Your task to perform on an android device: Open Maps and search for coffee Image 0: 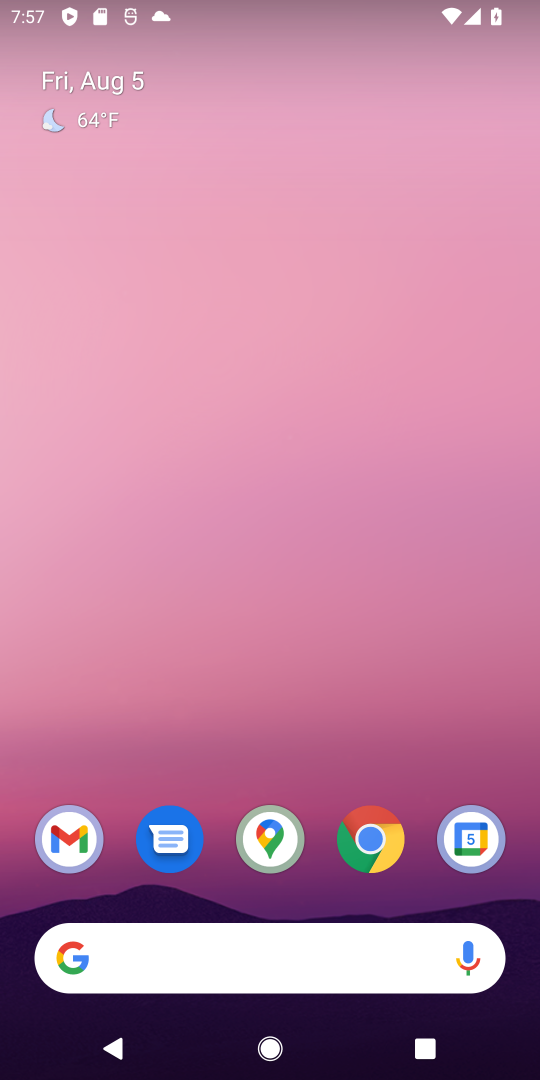
Step 0: drag from (329, 900) to (211, 12)
Your task to perform on an android device: Open Maps and search for coffee Image 1: 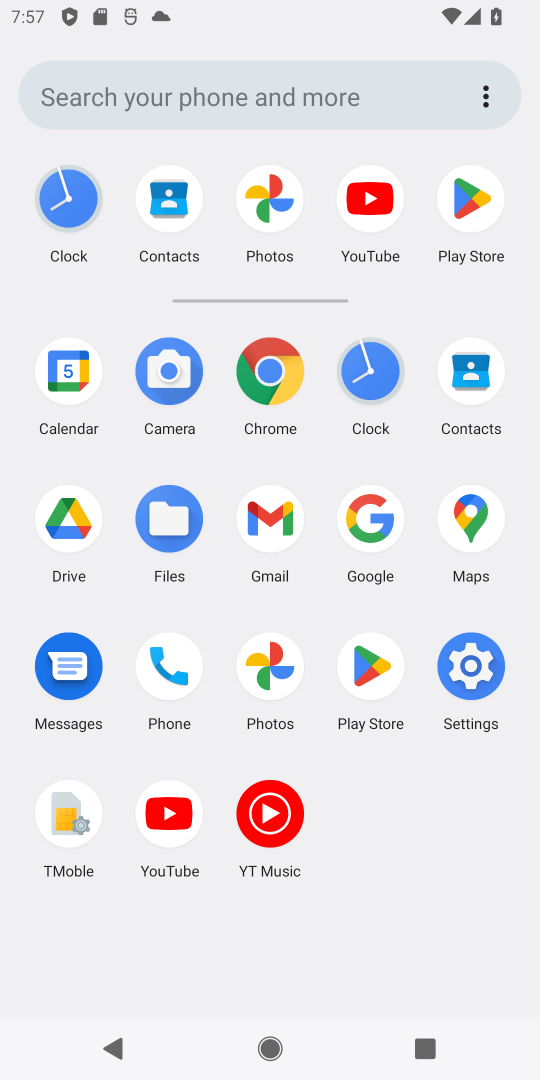
Step 1: click (470, 521)
Your task to perform on an android device: Open Maps and search for coffee Image 2: 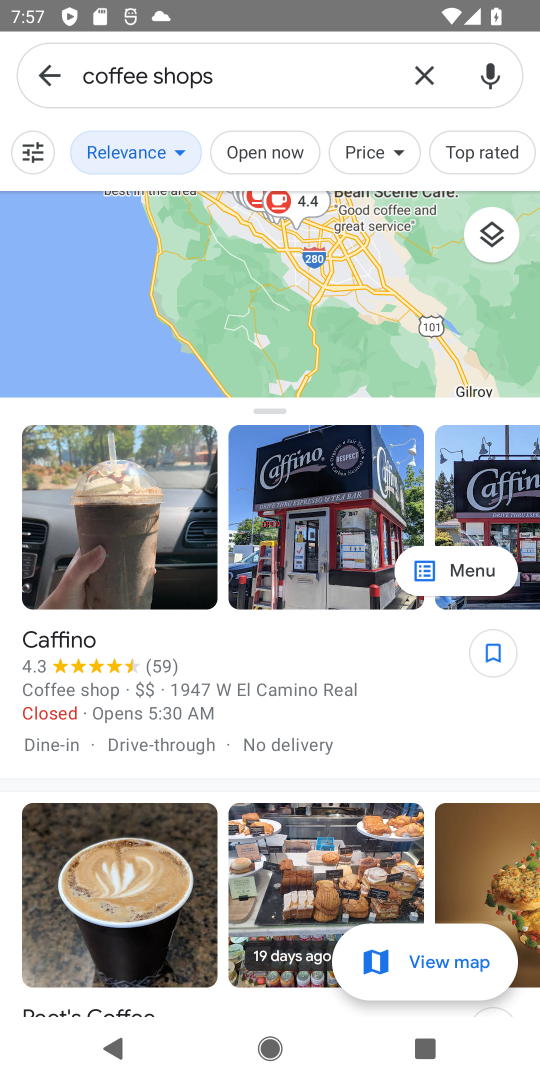
Step 2: task complete